Your task to perform on an android device: Open calendar and show me the fourth week of next month Image 0: 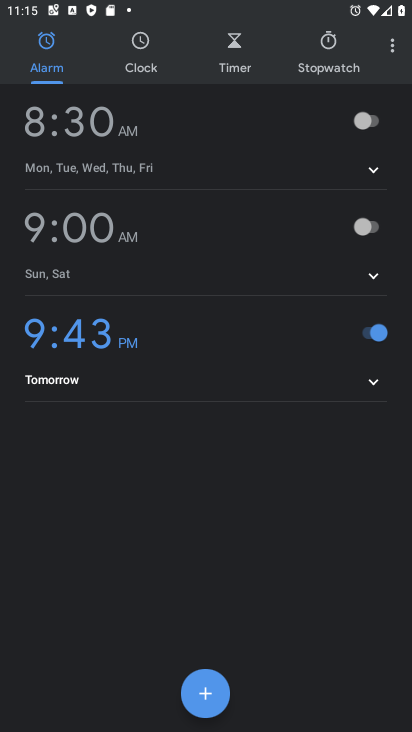
Step 0: press home button
Your task to perform on an android device: Open calendar and show me the fourth week of next month Image 1: 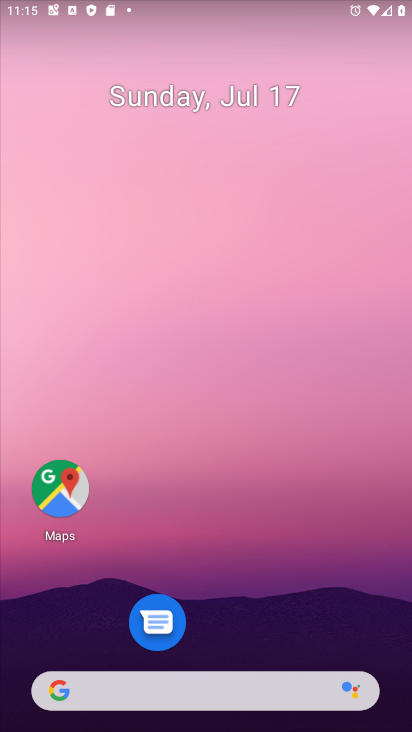
Step 1: drag from (170, 131) to (175, 11)
Your task to perform on an android device: Open calendar and show me the fourth week of next month Image 2: 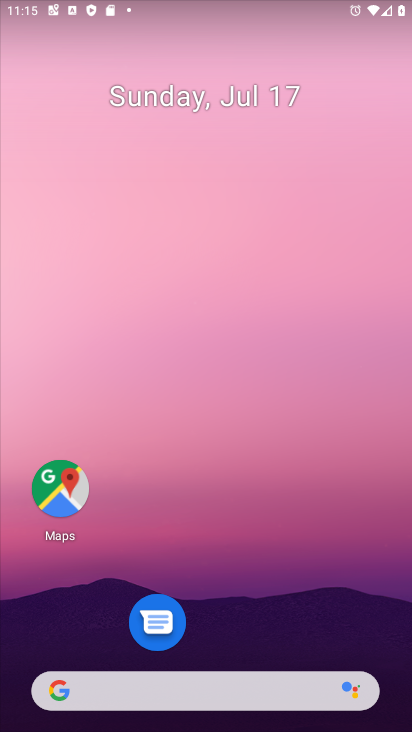
Step 2: drag from (229, 721) to (274, 45)
Your task to perform on an android device: Open calendar and show me the fourth week of next month Image 3: 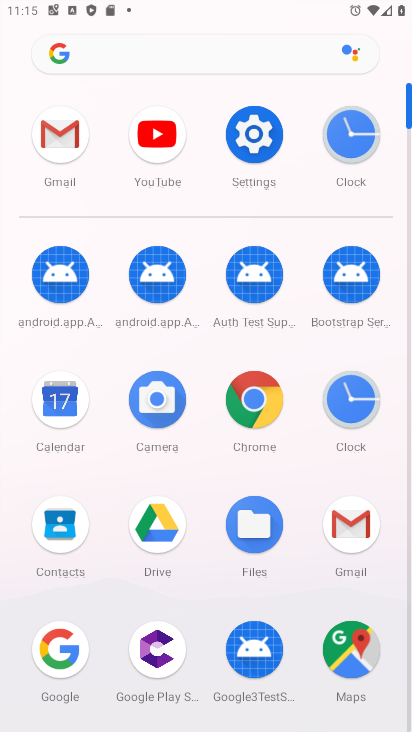
Step 3: click (66, 400)
Your task to perform on an android device: Open calendar and show me the fourth week of next month Image 4: 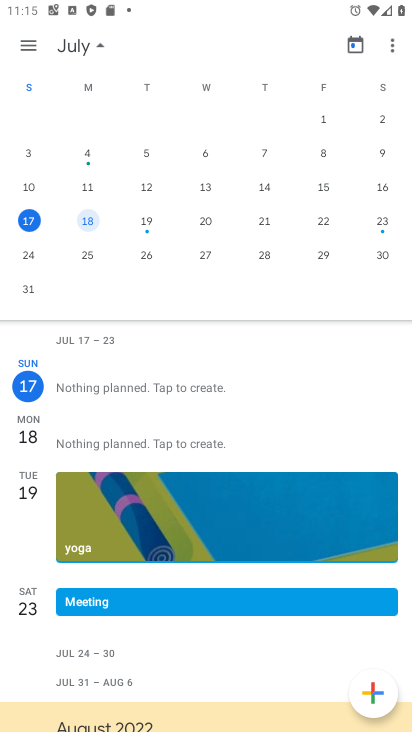
Step 4: drag from (295, 250) to (5, 404)
Your task to perform on an android device: Open calendar and show me the fourth week of next month Image 5: 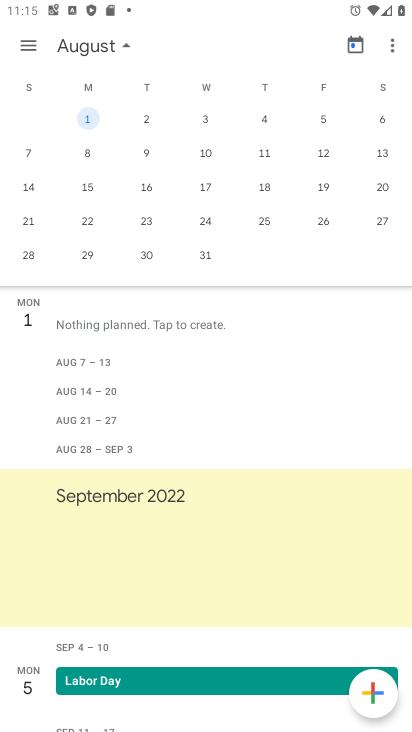
Step 5: click (26, 217)
Your task to perform on an android device: Open calendar and show me the fourth week of next month Image 6: 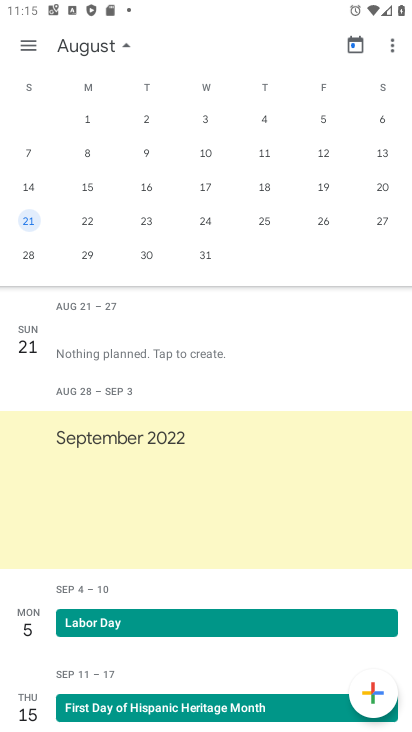
Step 6: task complete